Your task to perform on an android device: Open Google Maps Image 0: 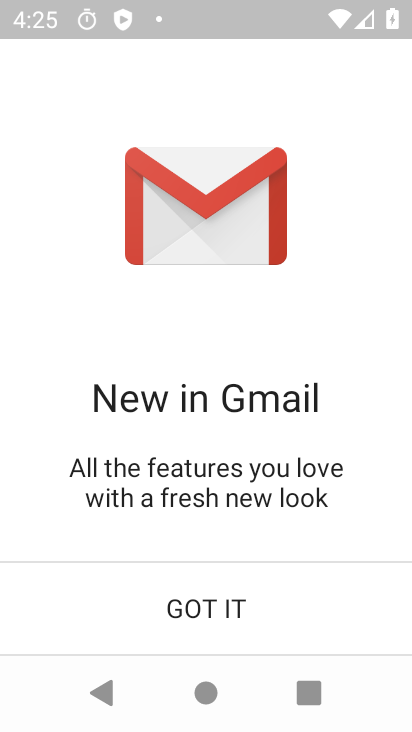
Step 0: press home button
Your task to perform on an android device: Open Google Maps Image 1: 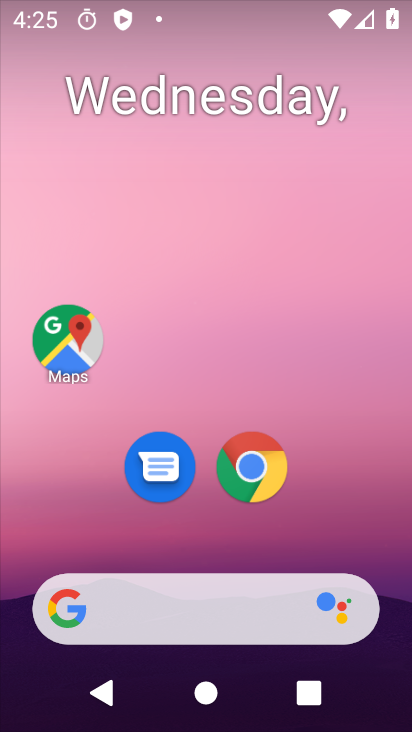
Step 1: click (61, 343)
Your task to perform on an android device: Open Google Maps Image 2: 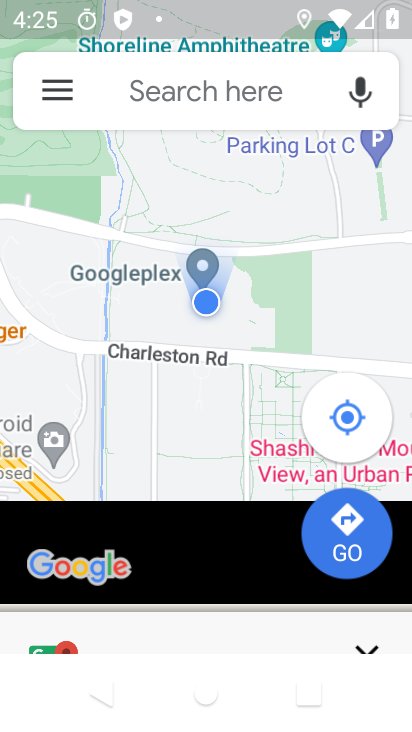
Step 2: task complete